Your task to perform on an android device: Open wifi settings Image 0: 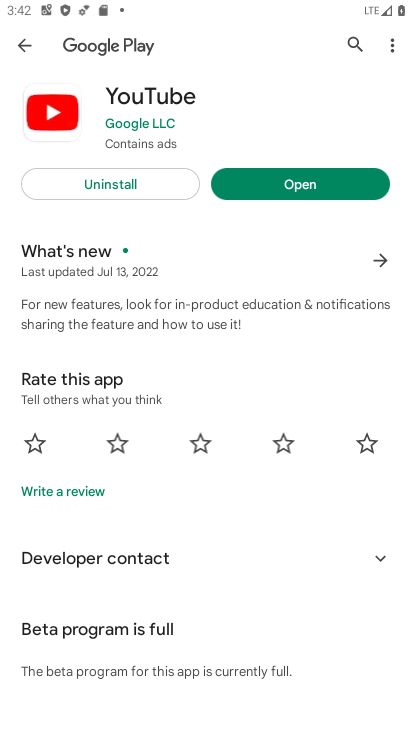
Step 0: press home button
Your task to perform on an android device: Open wifi settings Image 1: 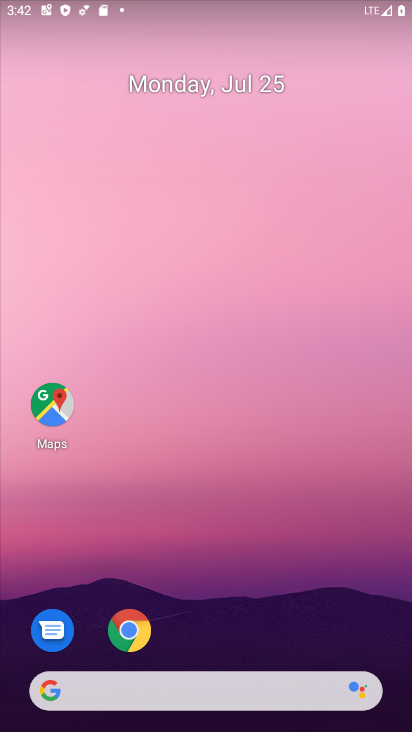
Step 1: drag from (243, 632) to (240, 8)
Your task to perform on an android device: Open wifi settings Image 2: 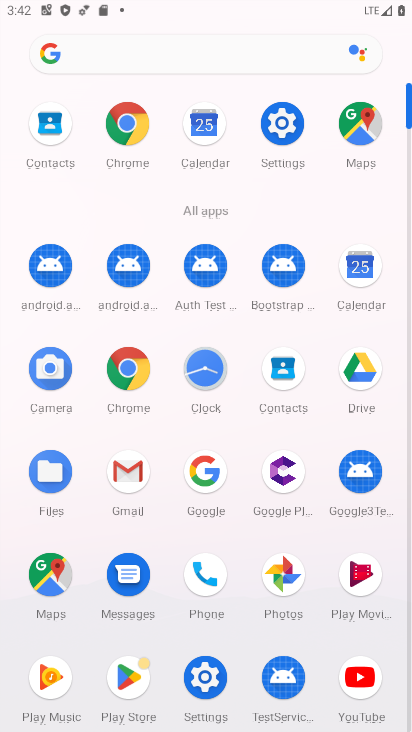
Step 2: click (290, 140)
Your task to perform on an android device: Open wifi settings Image 3: 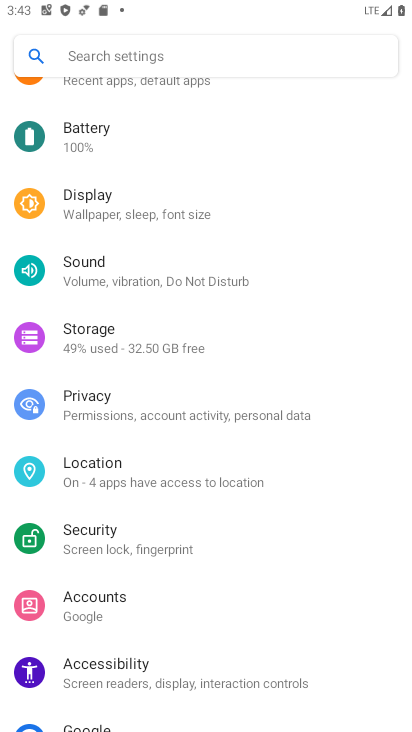
Step 3: drag from (171, 151) to (169, 573)
Your task to perform on an android device: Open wifi settings Image 4: 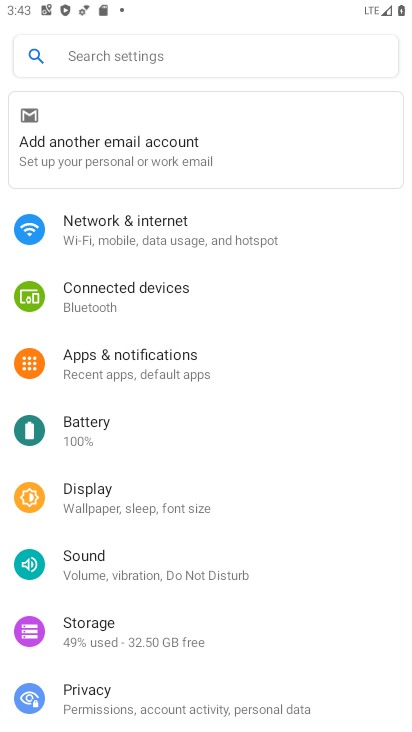
Step 4: click (180, 243)
Your task to perform on an android device: Open wifi settings Image 5: 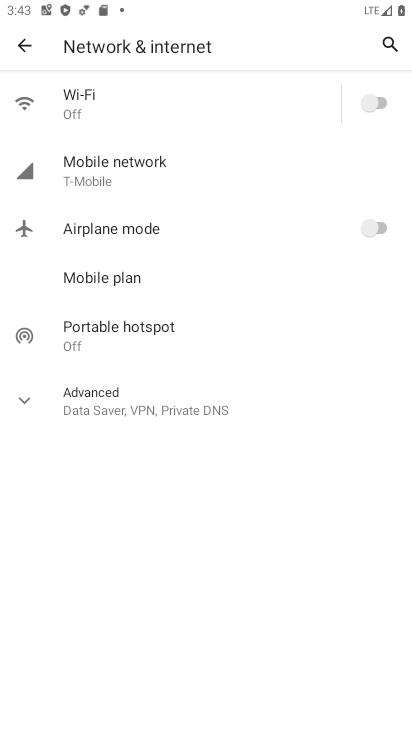
Step 5: click (90, 111)
Your task to perform on an android device: Open wifi settings Image 6: 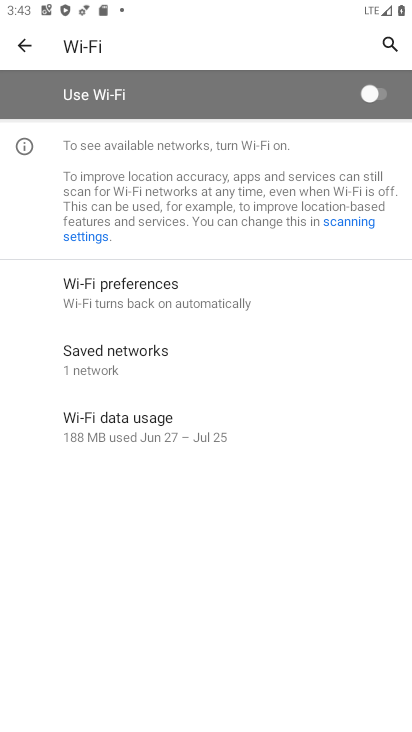
Step 6: task complete